Your task to perform on an android device: Show me the alarms in the clock app Image 0: 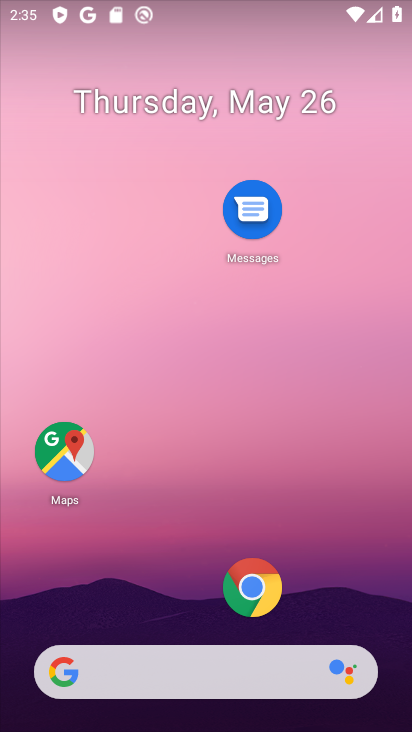
Step 0: drag from (147, 595) to (255, 278)
Your task to perform on an android device: Show me the alarms in the clock app Image 1: 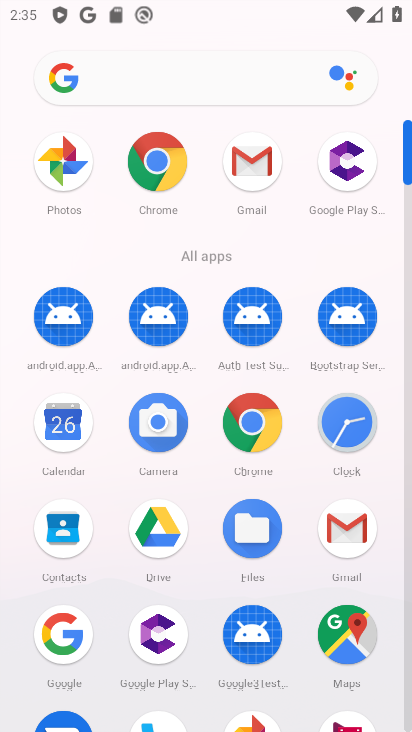
Step 1: click (350, 424)
Your task to perform on an android device: Show me the alarms in the clock app Image 2: 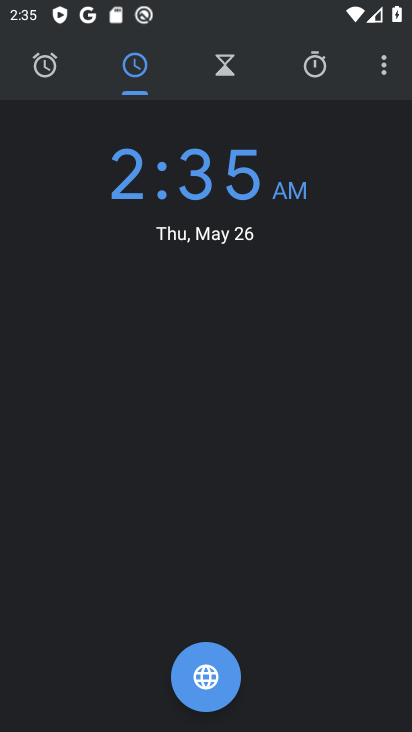
Step 2: click (42, 52)
Your task to perform on an android device: Show me the alarms in the clock app Image 3: 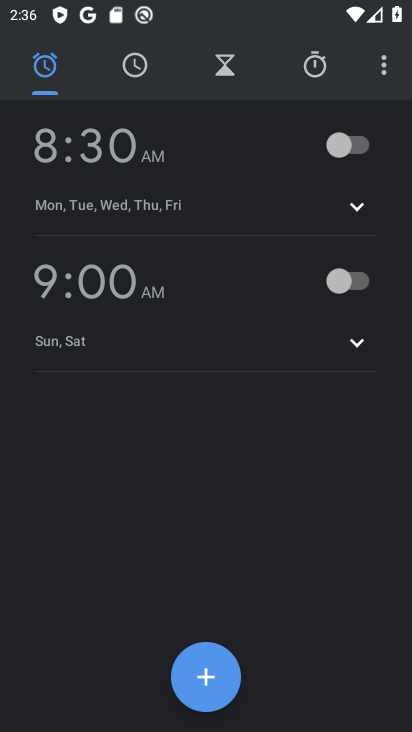
Step 3: task complete